Your task to perform on an android device: Open display settings Image 0: 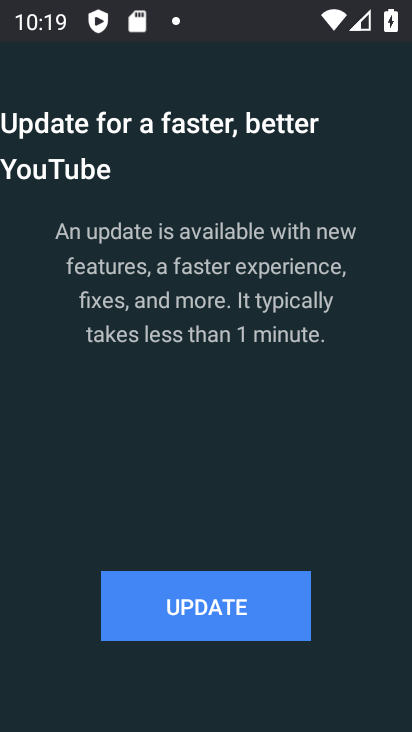
Step 0: press home button
Your task to perform on an android device: Open display settings Image 1: 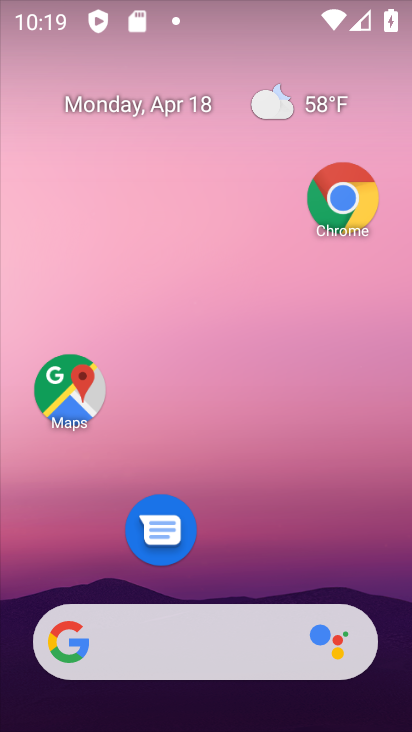
Step 1: drag from (139, 582) to (175, 204)
Your task to perform on an android device: Open display settings Image 2: 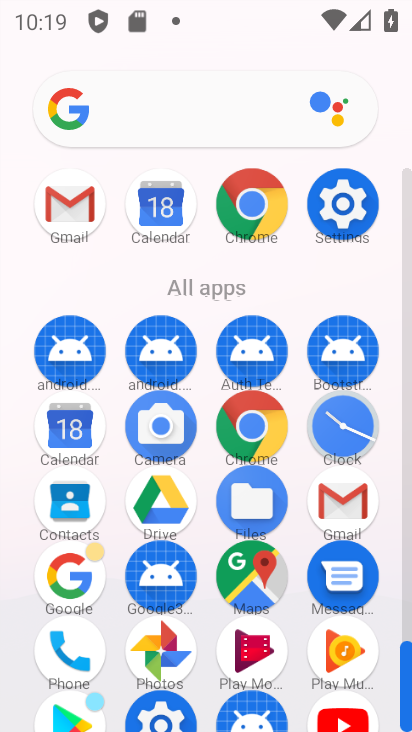
Step 2: click (334, 198)
Your task to perform on an android device: Open display settings Image 3: 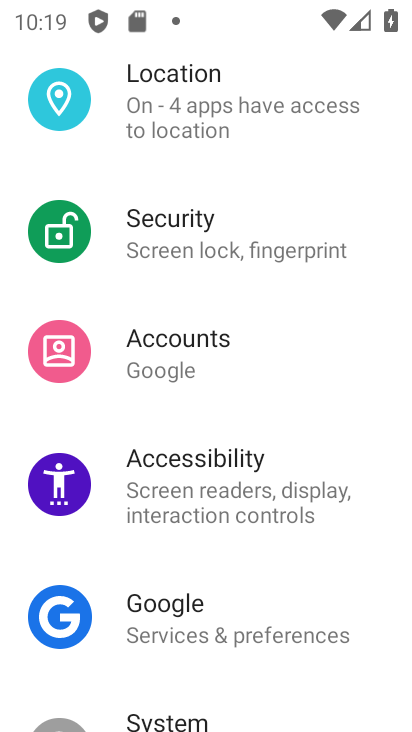
Step 3: drag from (176, 551) to (205, 261)
Your task to perform on an android device: Open display settings Image 4: 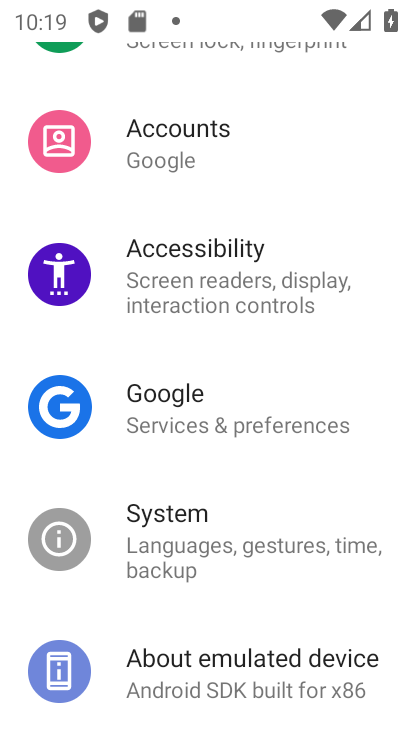
Step 4: drag from (207, 433) to (253, 223)
Your task to perform on an android device: Open display settings Image 5: 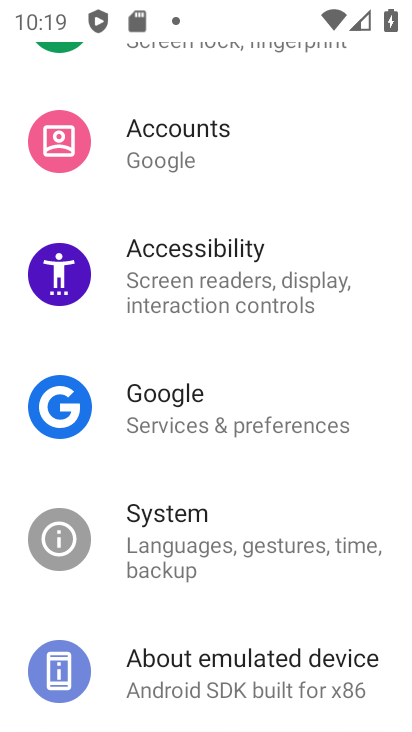
Step 5: drag from (231, 188) to (227, 507)
Your task to perform on an android device: Open display settings Image 6: 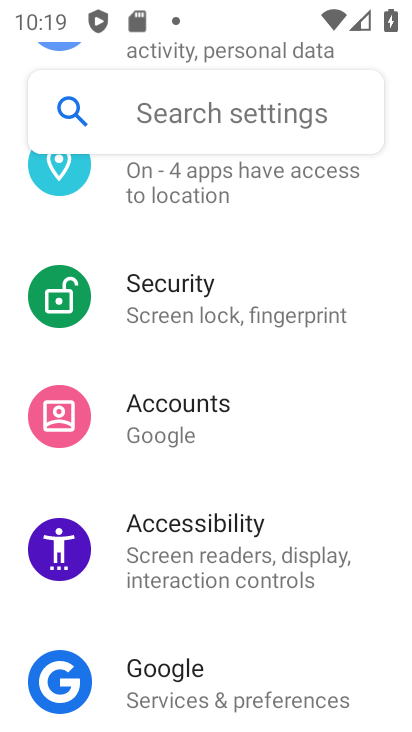
Step 6: drag from (196, 284) to (224, 536)
Your task to perform on an android device: Open display settings Image 7: 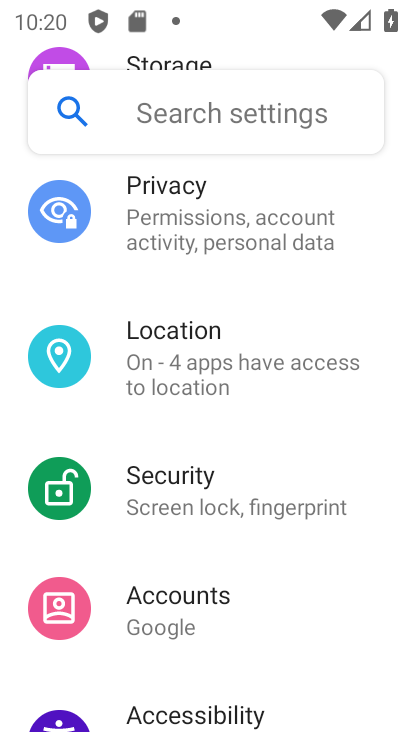
Step 7: drag from (211, 240) to (201, 512)
Your task to perform on an android device: Open display settings Image 8: 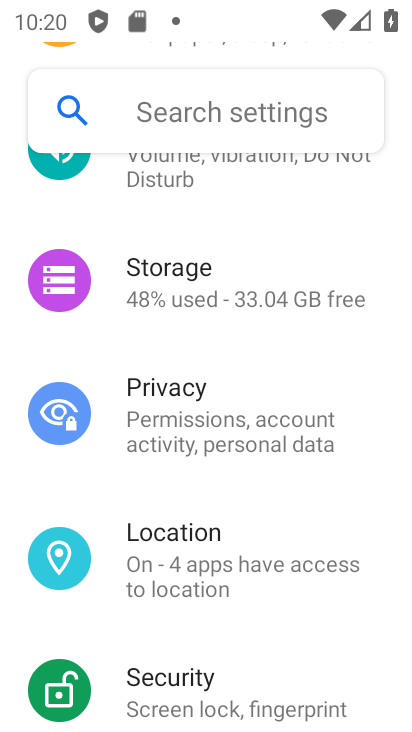
Step 8: drag from (263, 224) to (240, 457)
Your task to perform on an android device: Open display settings Image 9: 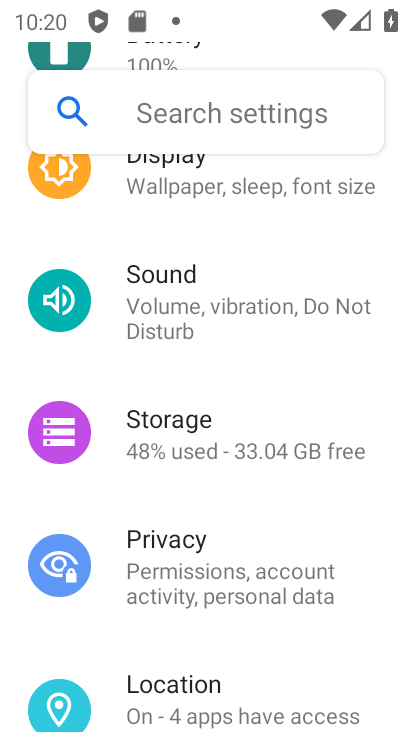
Step 9: drag from (220, 249) to (212, 351)
Your task to perform on an android device: Open display settings Image 10: 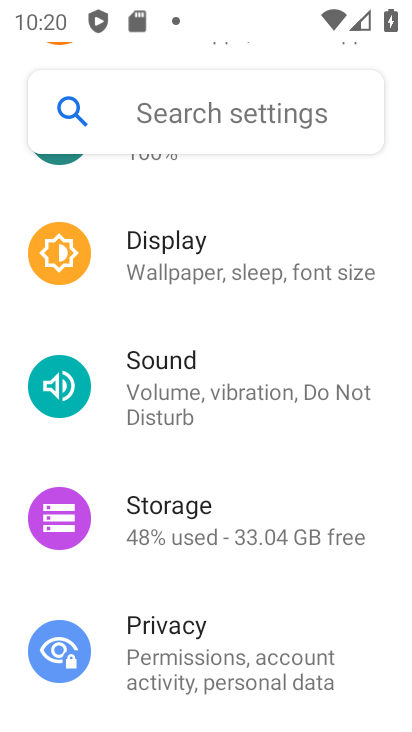
Step 10: click (182, 271)
Your task to perform on an android device: Open display settings Image 11: 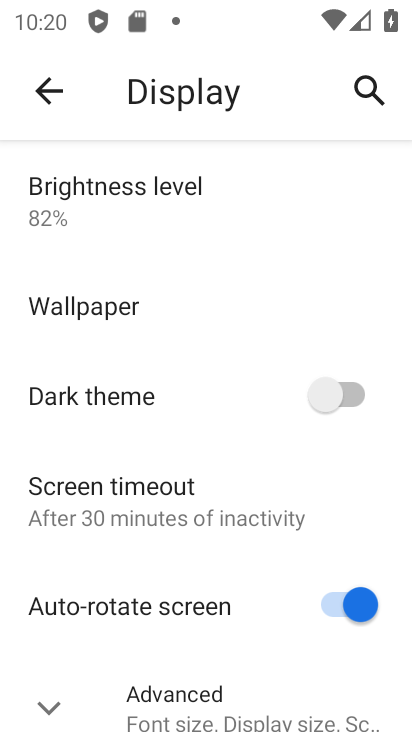
Step 11: task complete